Your task to perform on an android device: Open settings on Google Maps Image 0: 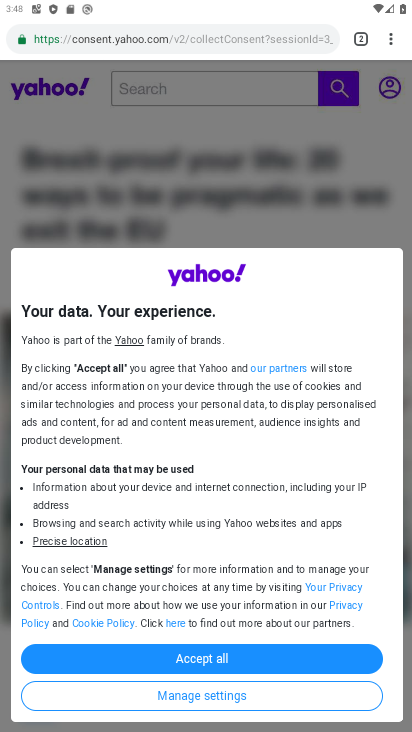
Step 0: press back button
Your task to perform on an android device: Open settings on Google Maps Image 1: 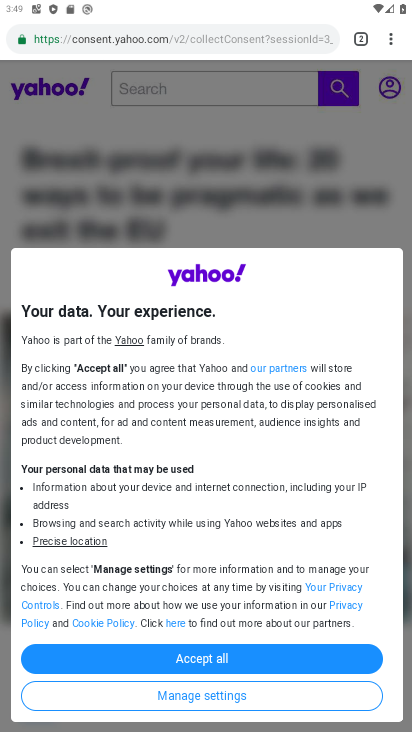
Step 1: press back button
Your task to perform on an android device: Open settings on Google Maps Image 2: 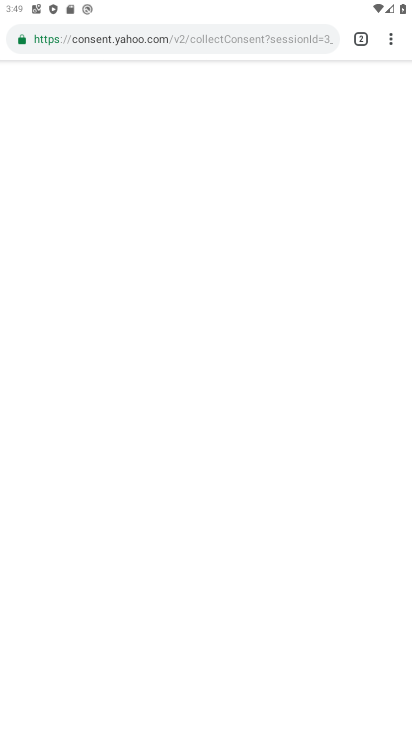
Step 2: press back button
Your task to perform on an android device: Open settings on Google Maps Image 3: 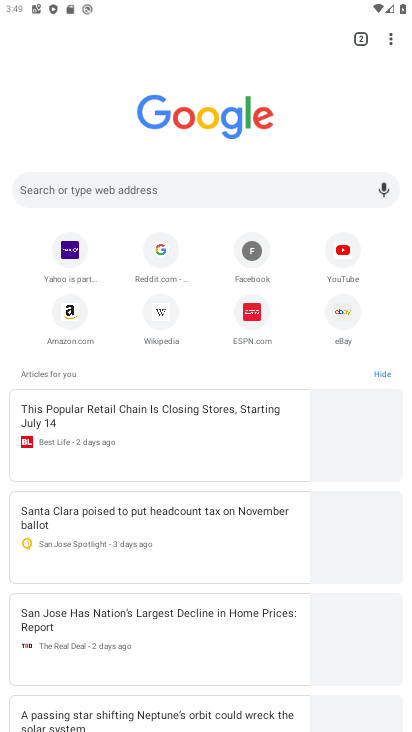
Step 3: press back button
Your task to perform on an android device: Open settings on Google Maps Image 4: 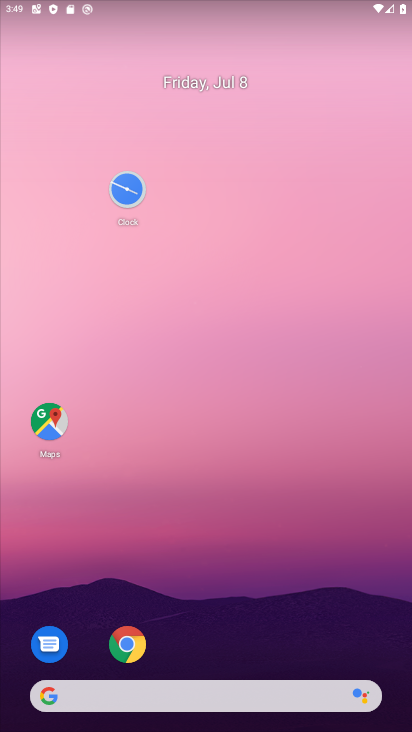
Step 4: press home button
Your task to perform on an android device: Open settings on Google Maps Image 5: 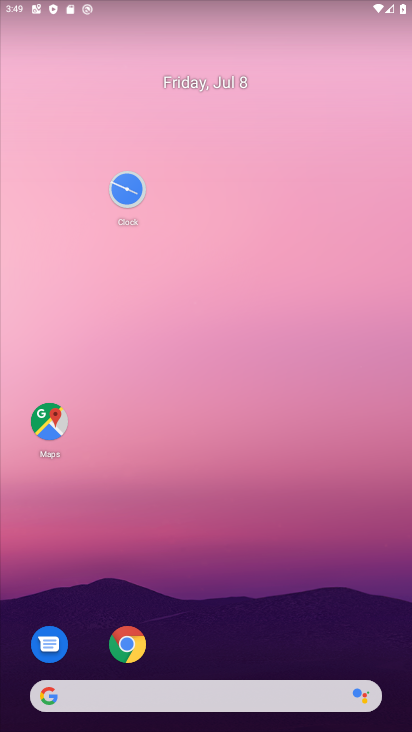
Step 5: drag from (226, 632) to (8, 112)
Your task to perform on an android device: Open settings on Google Maps Image 6: 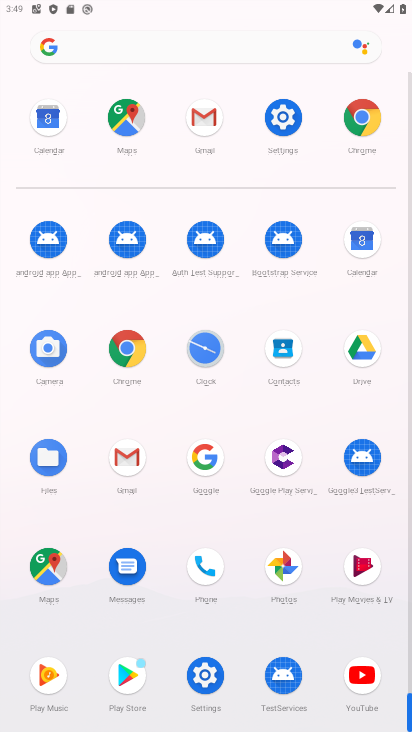
Step 6: click (119, 126)
Your task to perform on an android device: Open settings on Google Maps Image 7: 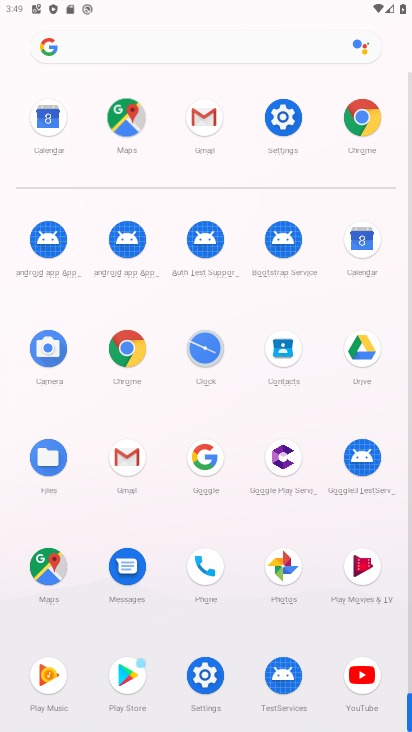
Step 7: click (119, 125)
Your task to perform on an android device: Open settings on Google Maps Image 8: 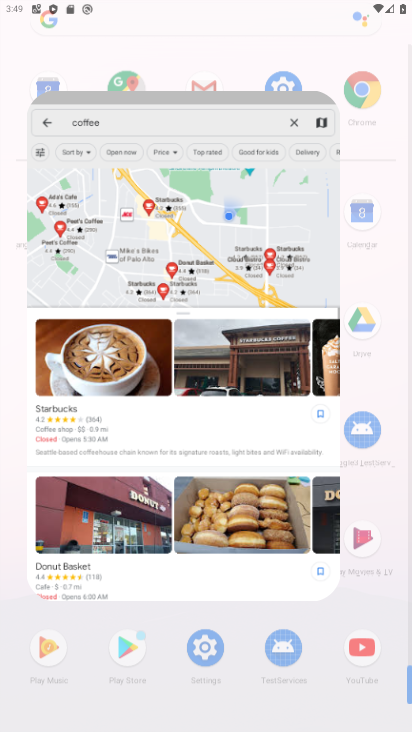
Step 8: click (119, 125)
Your task to perform on an android device: Open settings on Google Maps Image 9: 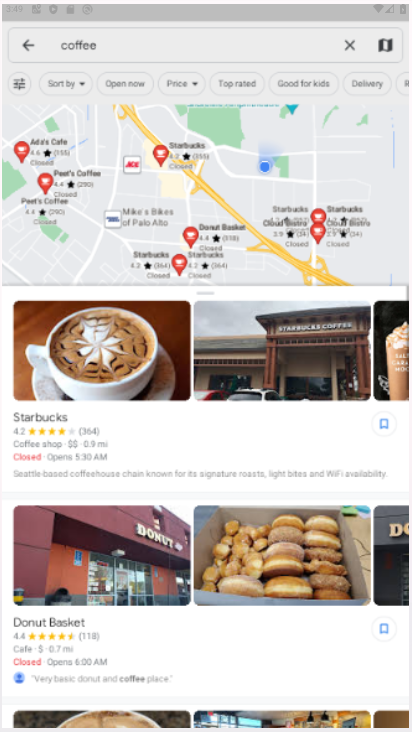
Step 9: click (119, 125)
Your task to perform on an android device: Open settings on Google Maps Image 10: 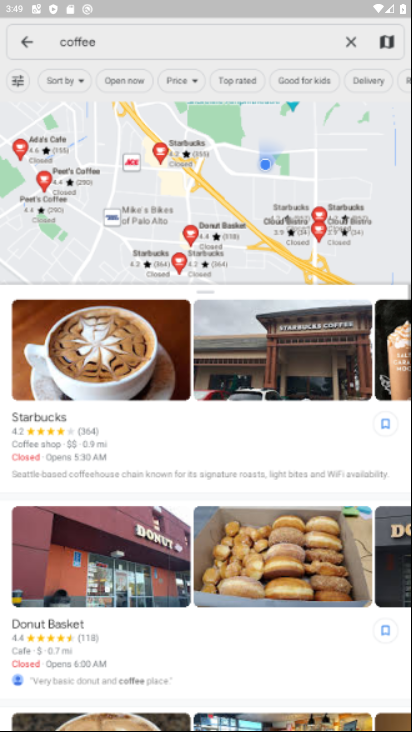
Step 10: click (119, 125)
Your task to perform on an android device: Open settings on Google Maps Image 11: 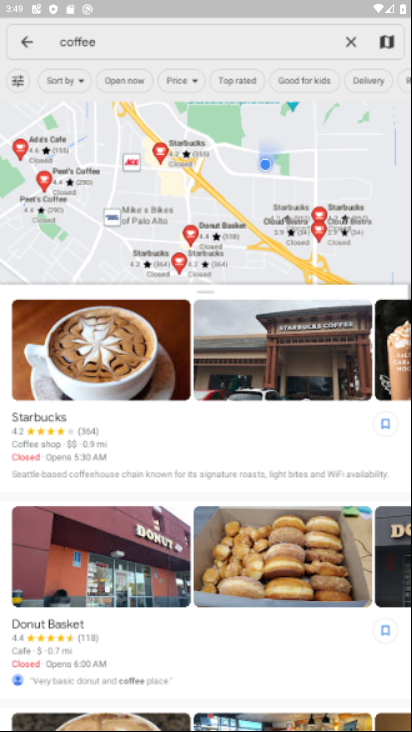
Step 11: click (120, 124)
Your task to perform on an android device: Open settings on Google Maps Image 12: 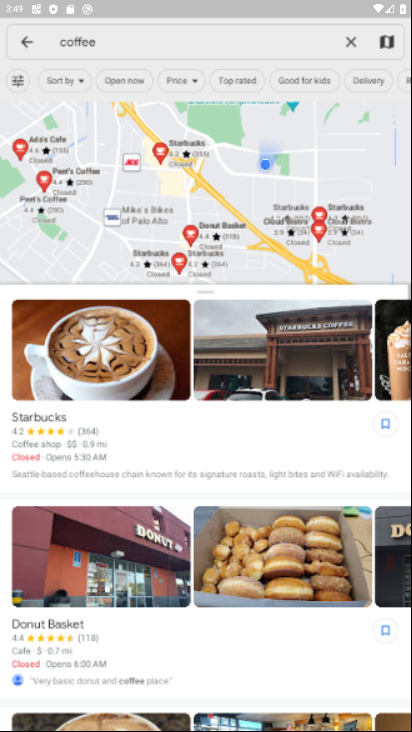
Step 12: click (7, 40)
Your task to perform on an android device: Open settings on Google Maps Image 13: 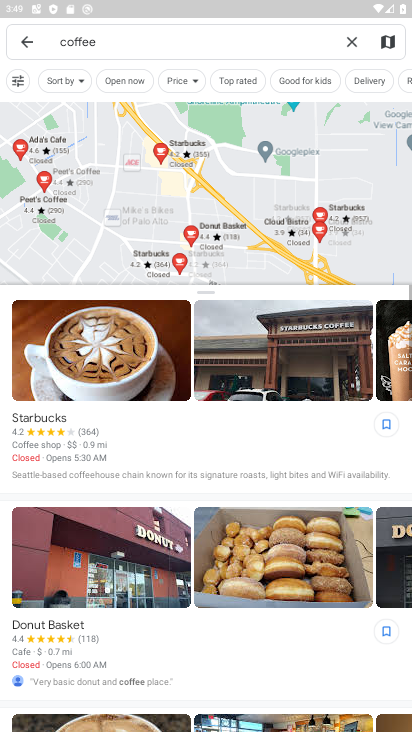
Step 13: click (13, 42)
Your task to perform on an android device: Open settings on Google Maps Image 14: 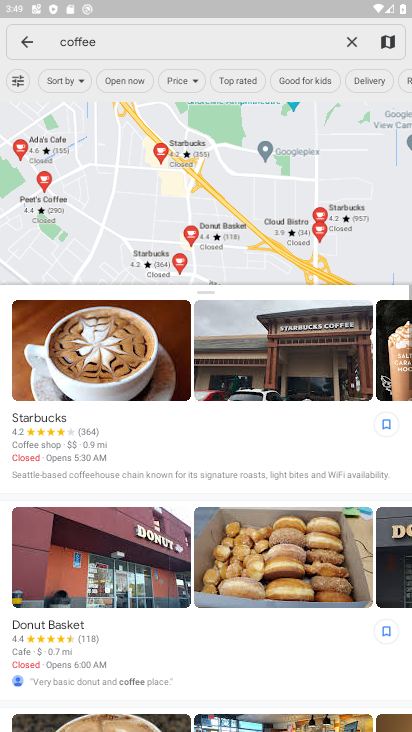
Step 14: click (19, 42)
Your task to perform on an android device: Open settings on Google Maps Image 15: 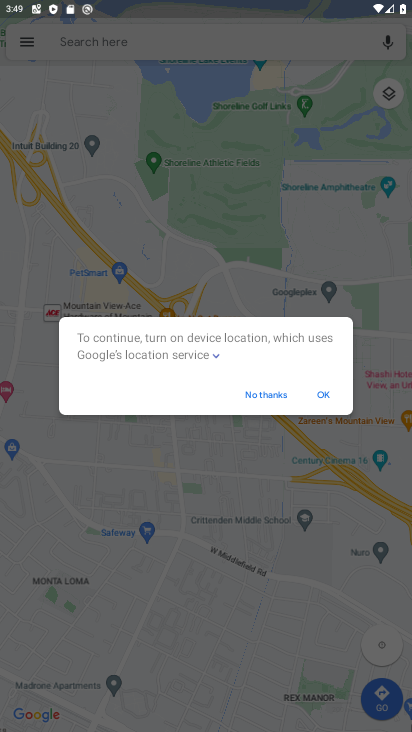
Step 15: click (323, 397)
Your task to perform on an android device: Open settings on Google Maps Image 16: 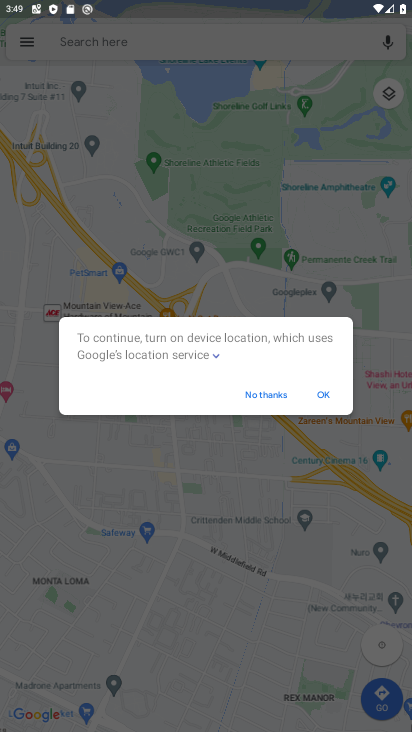
Step 16: click (319, 395)
Your task to perform on an android device: Open settings on Google Maps Image 17: 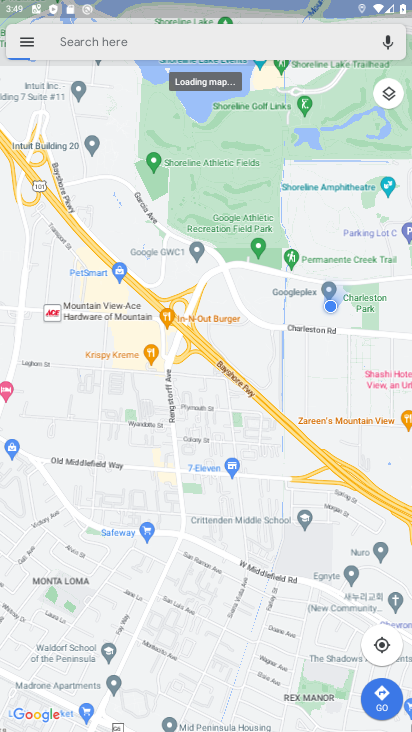
Step 17: click (25, 39)
Your task to perform on an android device: Open settings on Google Maps Image 18: 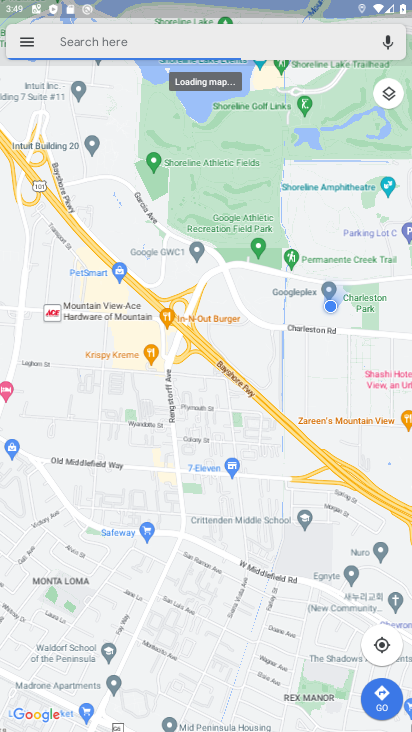
Step 18: click (29, 38)
Your task to perform on an android device: Open settings on Google Maps Image 19: 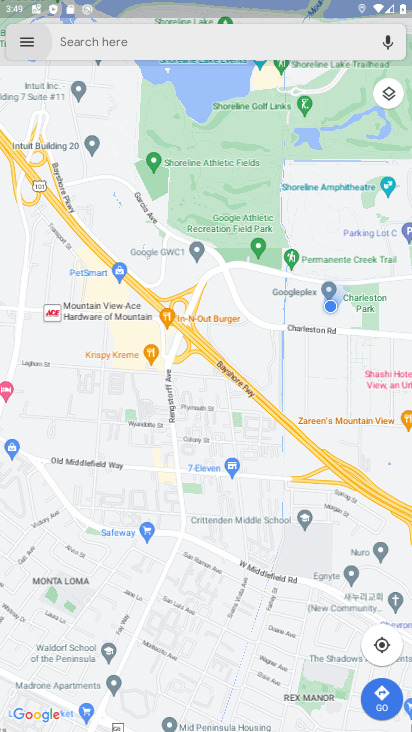
Step 19: click (31, 35)
Your task to perform on an android device: Open settings on Google Maps Image 20: 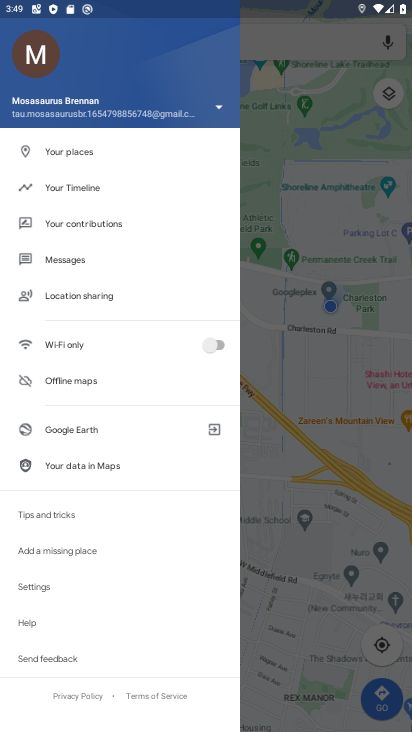
Step 20: click (48, 587)
Your task to perform on an android device: Open settings on Google Maps Image 21: 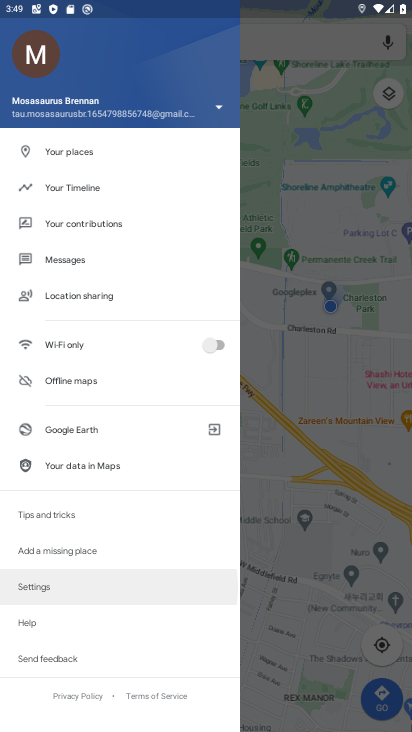
Step 21: click (49, 587)
Your task to perform on an android device: Open settings on Google Maps Image 22: 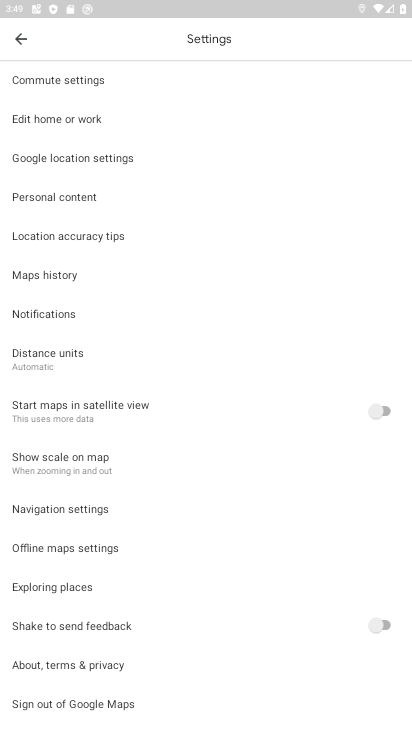
Step 22: task complete